Your task to perform on an android device: turn on airplane mode Image 0: 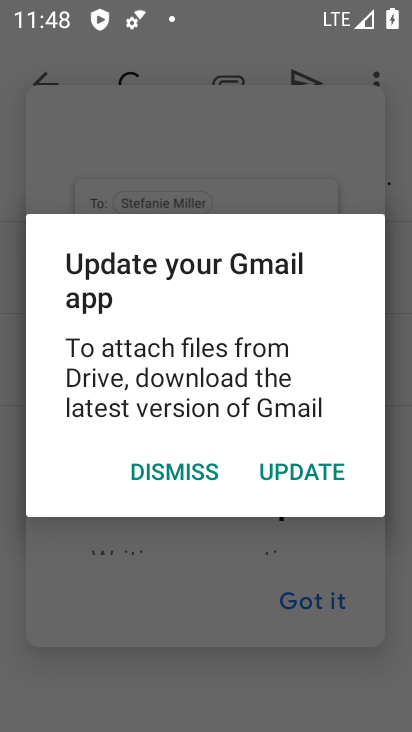
Step 0: press home button
Your task to perform on an android device: turn on airplane mode Image 1: 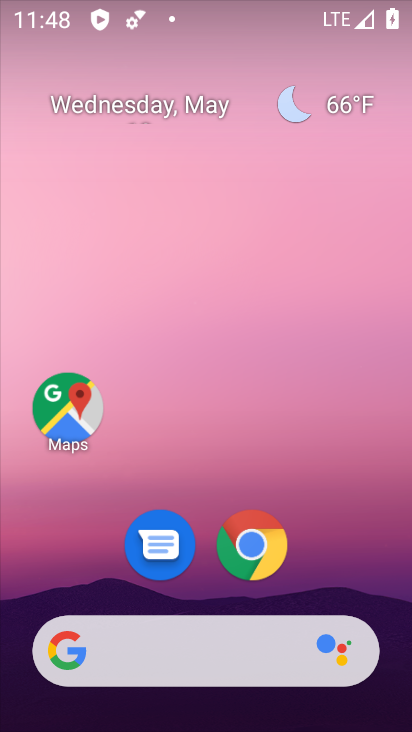
Step 1: drag from (300, 699) to (310, 1)
Your task to perform on an android device: turn on airplane mode Image 2: 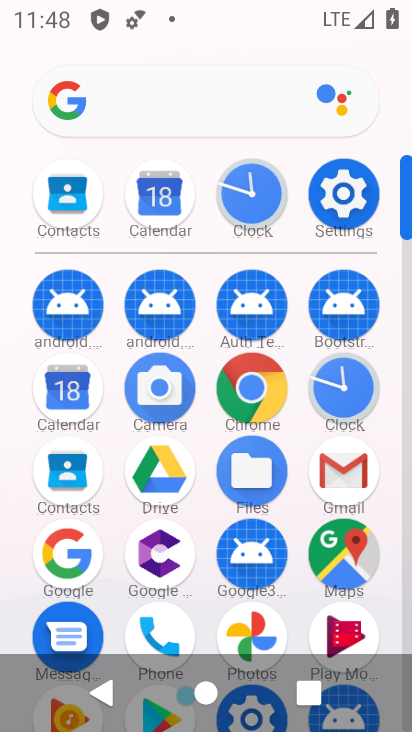
Step 2: click (353, 190)
Your task to perform on an android device: turn on airplane mode Image 3: 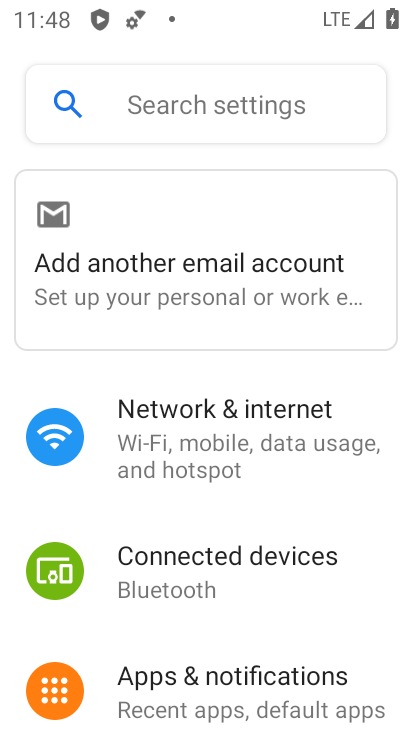
Step 3: click (258, 441)
Your task to perform on an android device: turn on airplane mode Image 4: 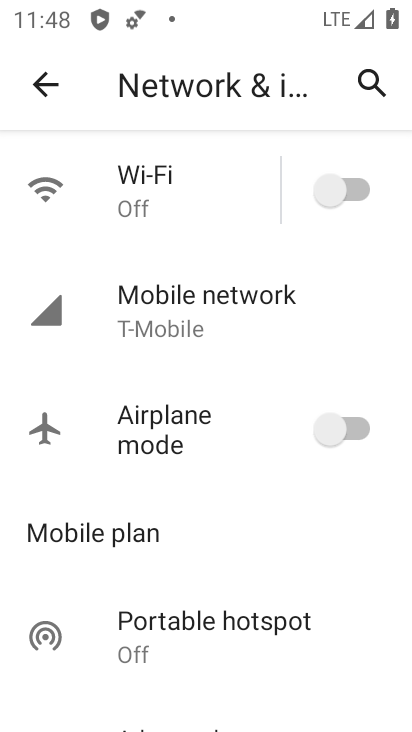
Step 4: click (352, 429)
Your task to perform on an android device: turn on airplane mode Image 5: 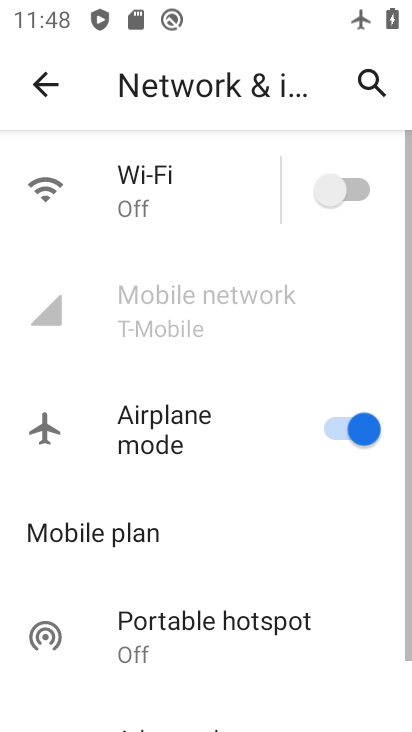
Step 5: task complete